Your task to perform on an android device: toggle pop-ups in chrome Image 0: 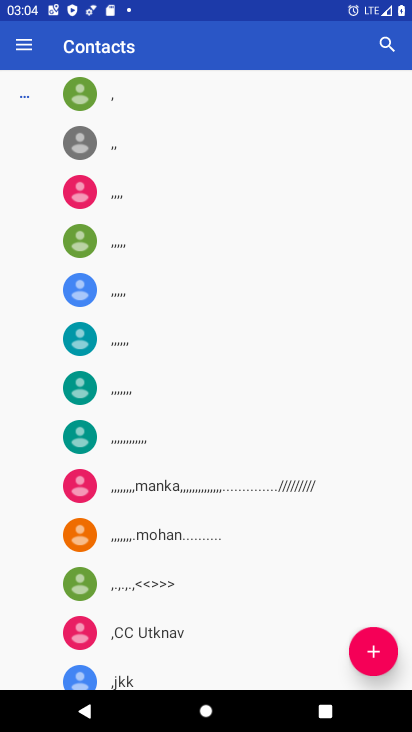
Step 0: press home button
Your task to perform on an android device: toggle pop-ups in chrome Image 1: 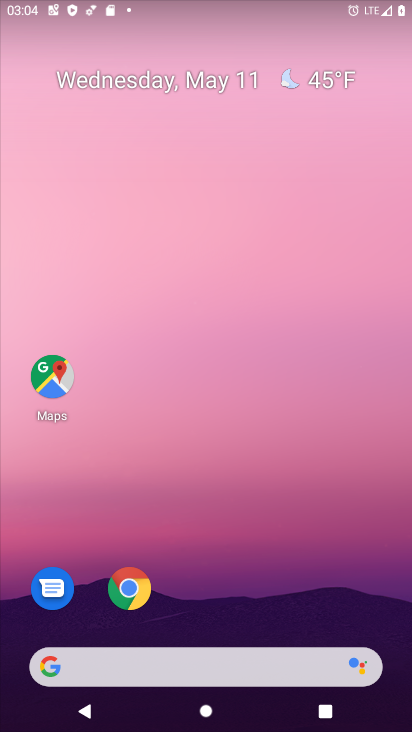
Step 1: click (138, 587)
Your task to perform on an android device: toggle pop-ups in chrome Image 2: 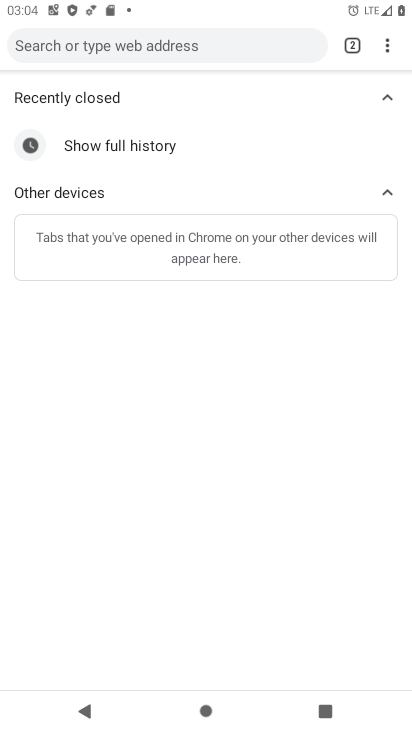
Step 2: click (382, 50)
Your task to perform on an android device: toggle pop-ups in chrome Image 3: 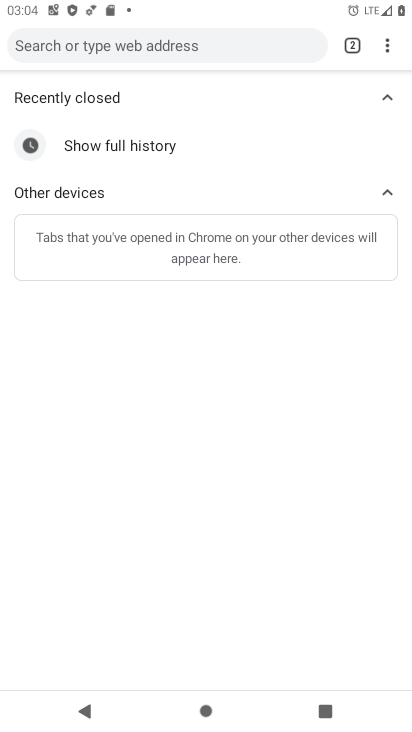
Step 3: click (387, 50)
Your task to perform on an android device: toggle pop-ups in chrome Image 4: 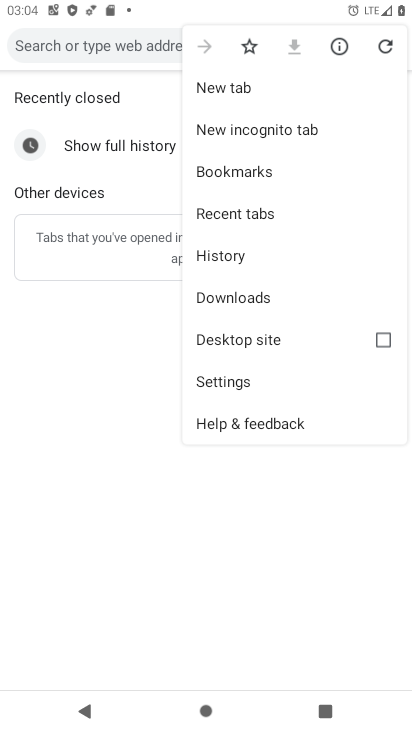
Step 4: click (238, 371)
Your task to perform on an android device: toggle pop-ups in chrome Image 5: 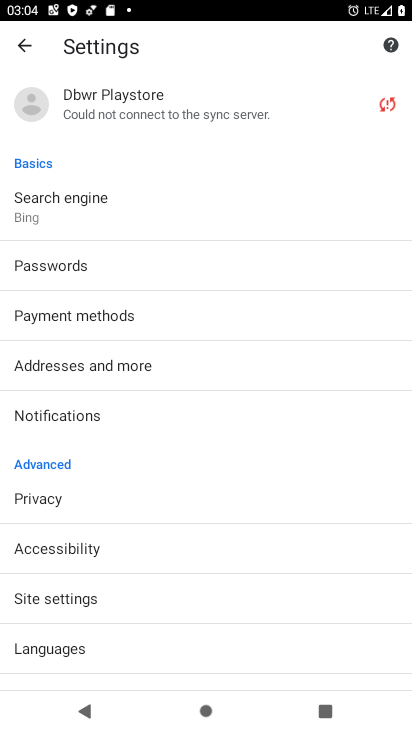
Step 5: click (121, 597)
Your task to perform on an android device: toggle pop-ups in chrome Image 6: 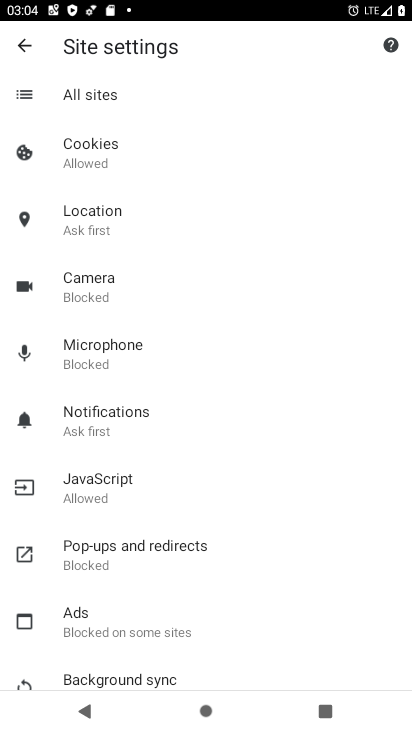
Step 6: drag from (148, 597) to (193, 289)
Your task to perform on an android device: toggle pop-ups in chrome Image 7: 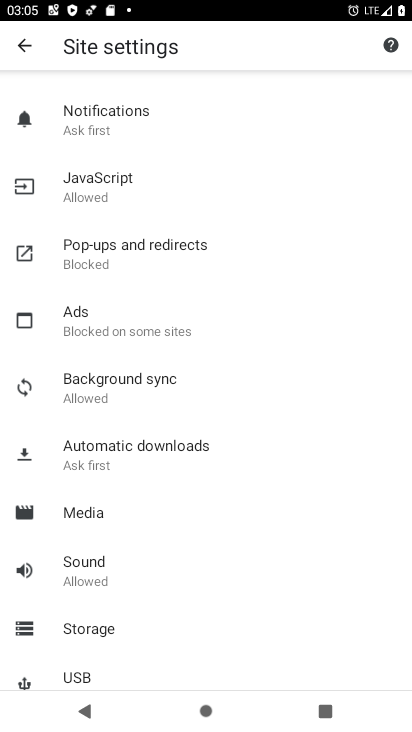
Step 7: drag from (170, 207) to (219, 261)
Your task to perform on an android device: toggle pop-ups in chrome Image 8: 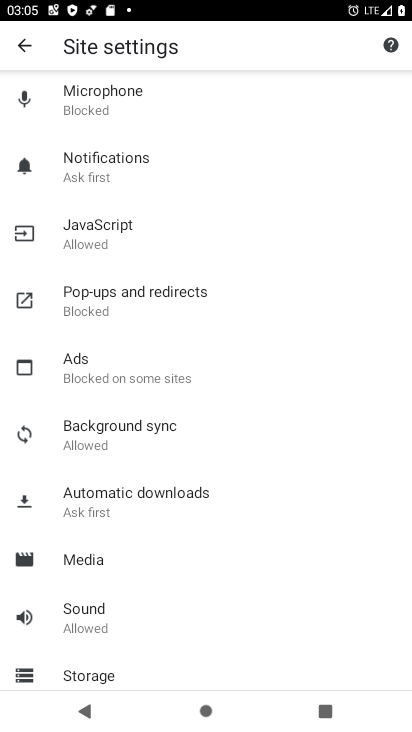
Step 8: drag from (180, 571) to (205, 319)
Your task to perform on an android device: toggle pop-ups in chrome Image 9: 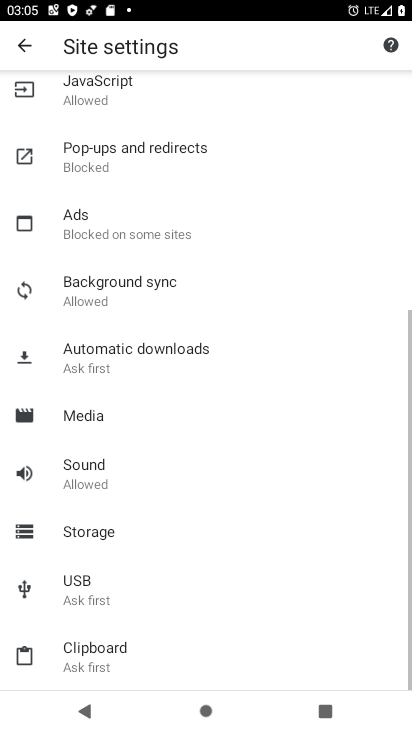
Step 9: drag from (216, 282) to (174, 577)
Your task to perform on an android device: toggle pop-ups in chrome Image 10: 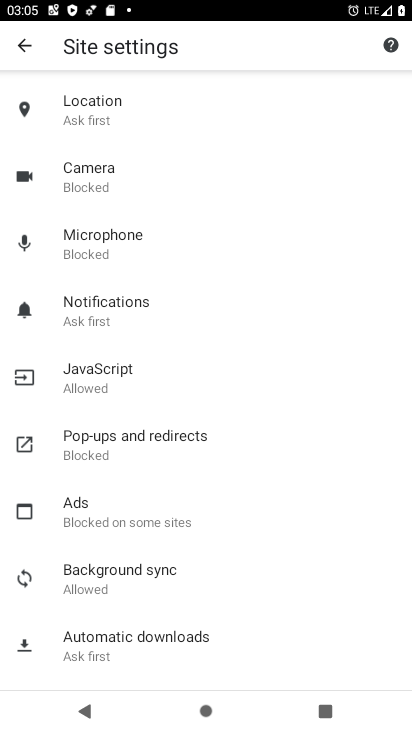
Step 10: click (153, 465)
Your task to perform on an android device: toggle pop-ups in chrome Image 11: 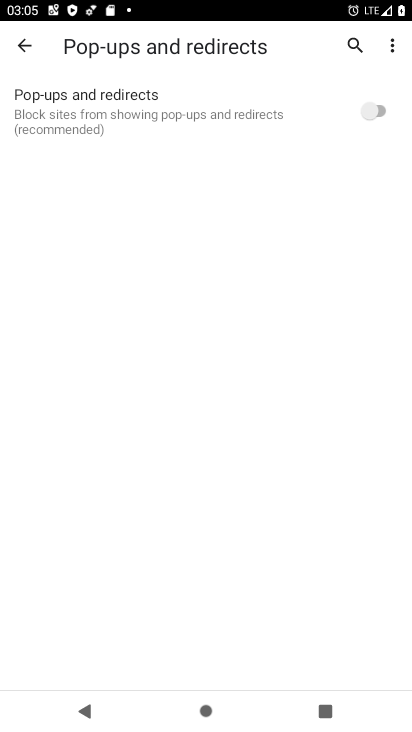
Step 11: click (385, 109)
Your task to perform on an android device: toggle pop-ups in chrome Image 12: 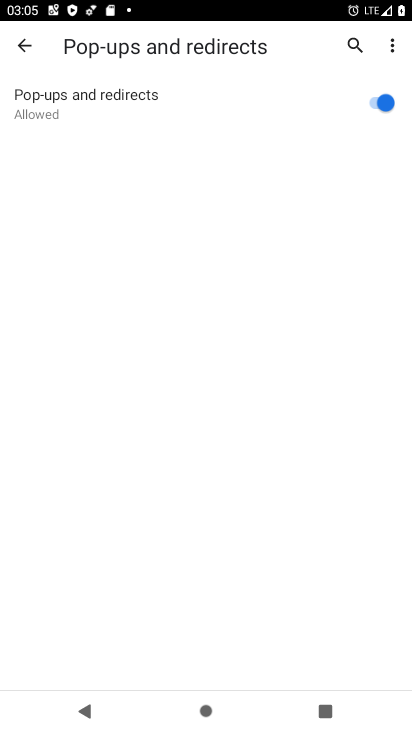
Step 12: task complete